Your task to perform on an android device: Open sound settings Image 0: 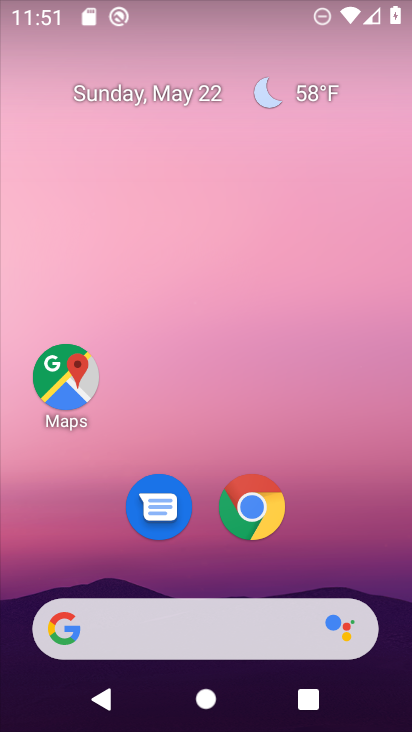
Step 0: drag from (248, 672) to (303, 7)
Your task to perform on an android device: Open sound settings Image 1: 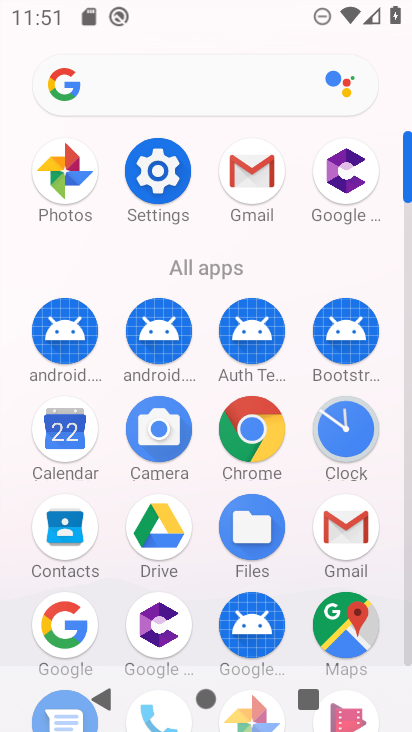
Step 1: click (128, 174)
Your task to perform on an android device: Open sound settings Image 2: 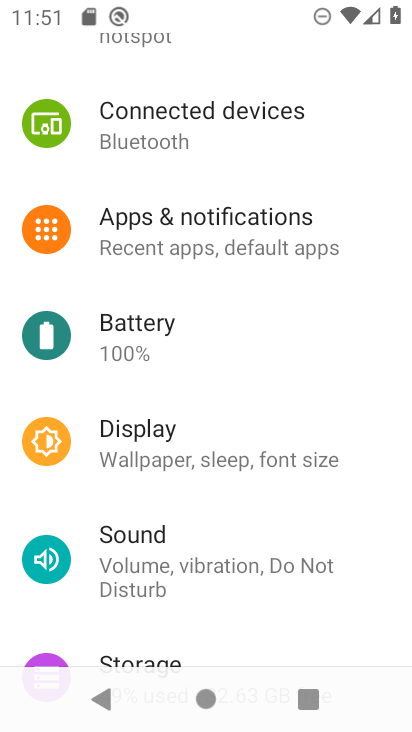
Step 2: click (228, 554)
Your task to perform on an android device: Open sound settings Image 3: 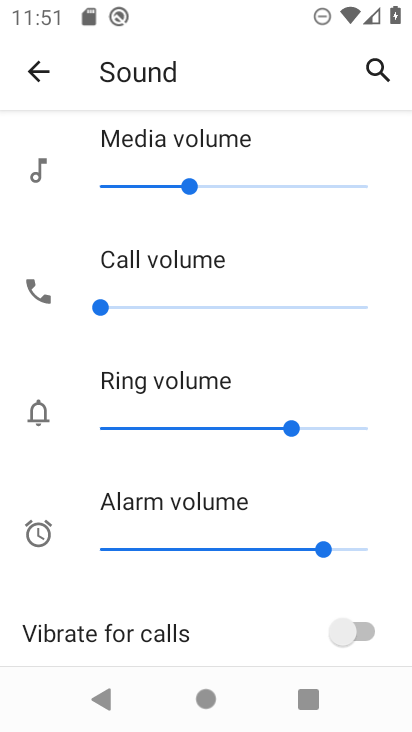
Step 3: task complete